Your task to perform on an android device: add a label to a message in the gmail app Image 0: 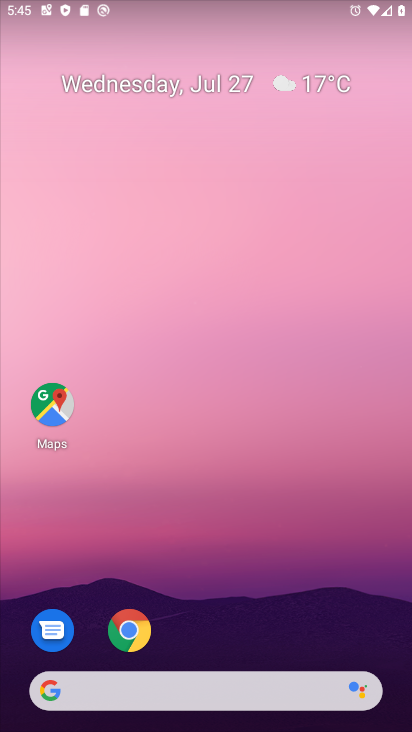
Step 0: drag from (232, 636) to (241, 87)
Your task to perform on an android device: add a label to a message in the gmail app Image 1: 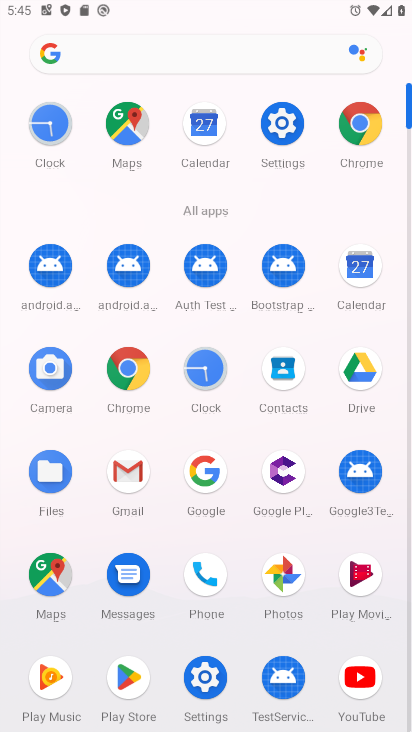
Step 1: click (126, 461)
Your task to perform on an android device: add a label to a message in the gmail app Image 2: 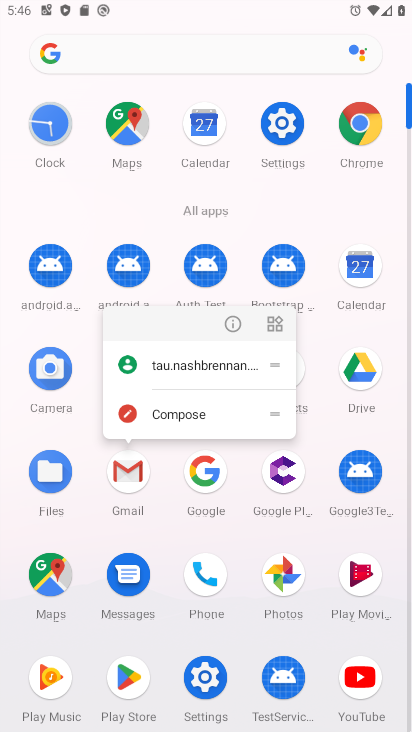
Step 2: click (137, 470)
Your task to perform on an android device: add a label to a message in the gmail app Image 3: 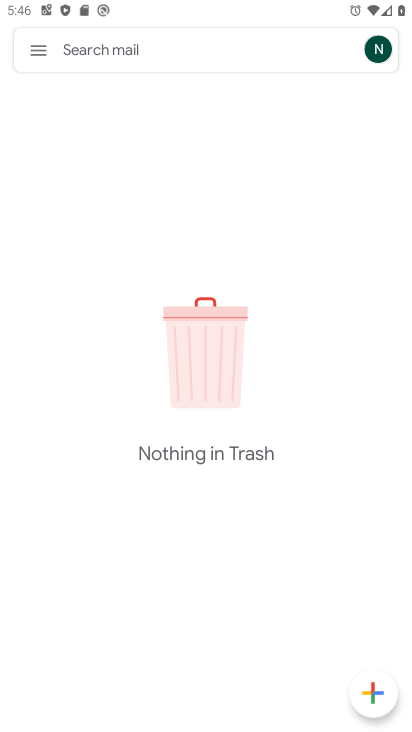
Step 3: task complete